Your task to perform on an android device: refresh tabs in the chrome app Image 0: 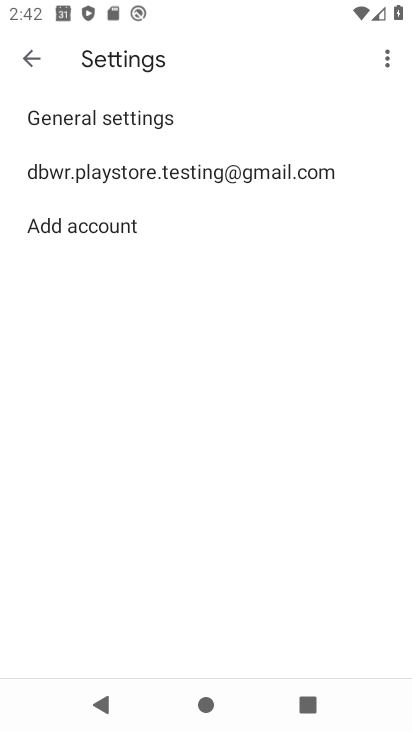
Step 0: press home button
Your task to perform on an android device: refresh tabs in the chrome app Image 1: 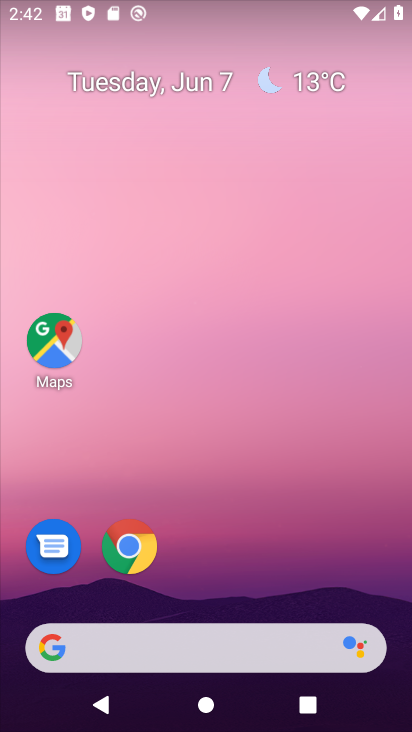
Step 1: click (135, 545)
Your task to perform on an android device: refresh tabs in the chrome app Image 2: 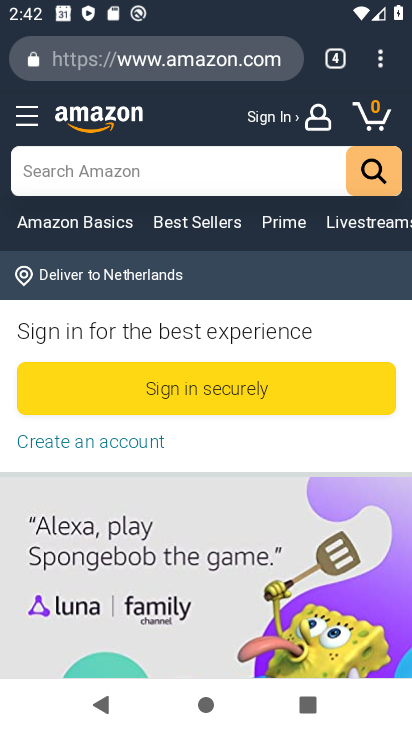
Step 2: click (378, 58)
Your task to perform on an android device: refresh tabs in the chrome app Image 3: 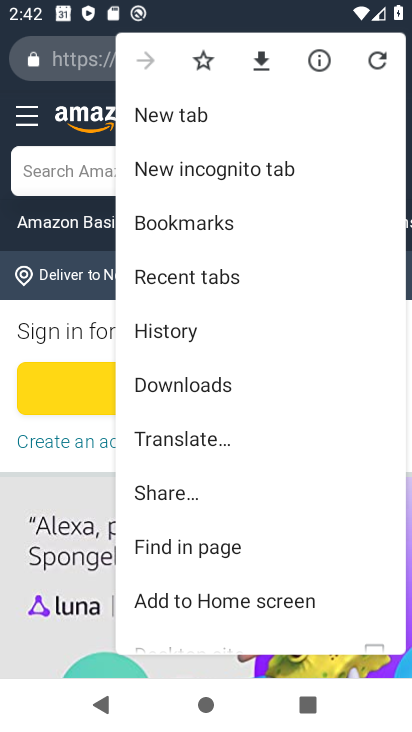
Step 3: click (368, 55)
Your task to perform on an android device: refresh tabs in the chrome app Image 4: 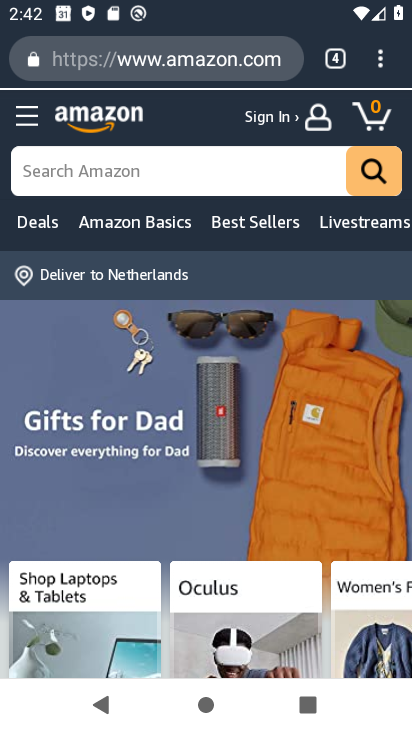
Step 4: task complete